Your task to perform on an android device: toggle location history Image 0: 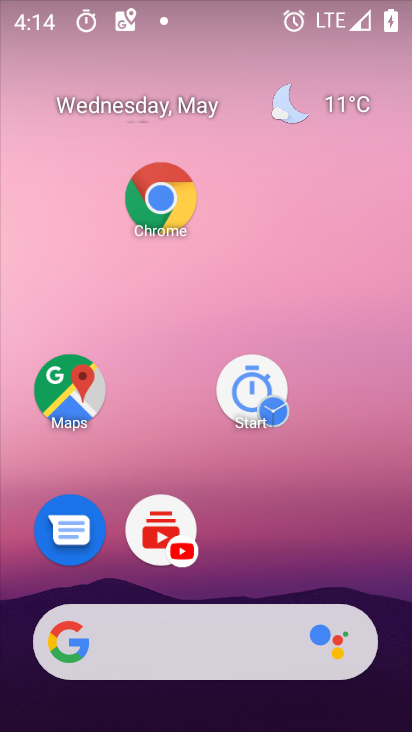
Step 0: drag from (341, 593) to (232, 95)
Your task to perform on an android device: toggle location history Image 1: 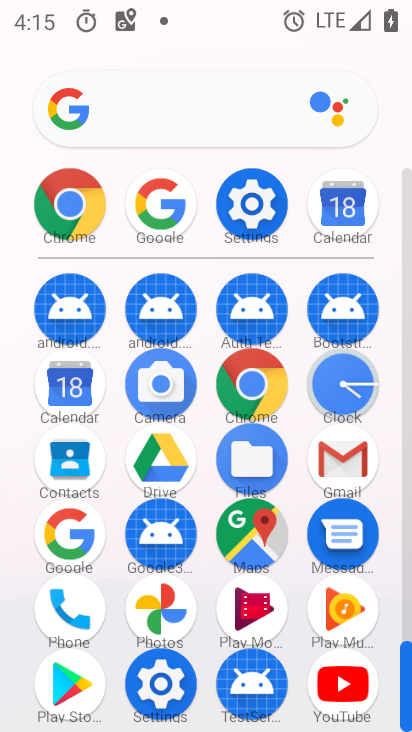
Step 1: click (226, 512)
Your task to perform on an android device: toggle location history Image 2: 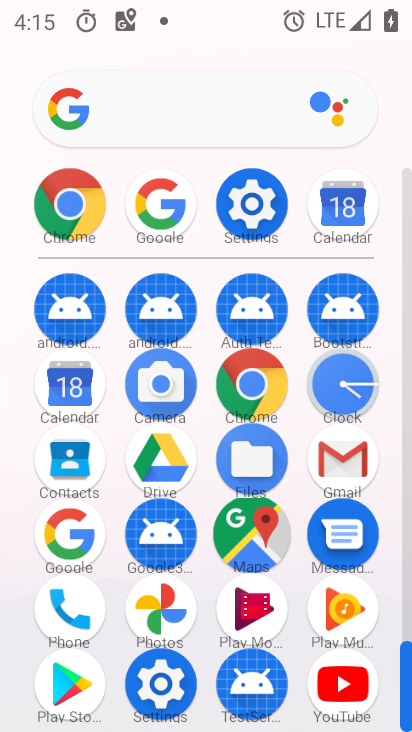
Step 2: click (243, 522)
Your task to perform on an android device: toggle location history Image 3: 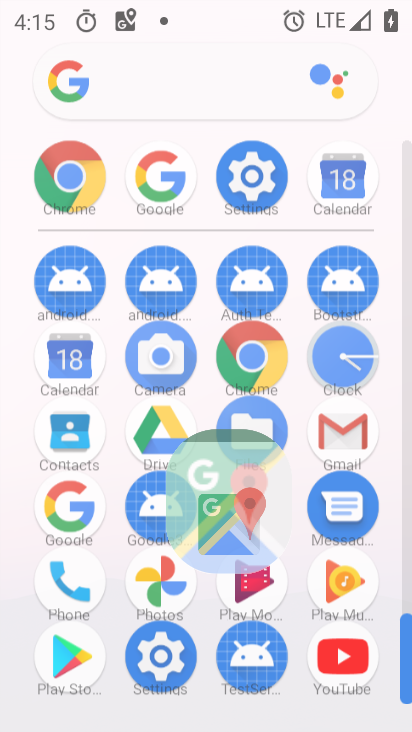
Step 3: click (243, 522)
Your task to perform on an android device: toggle location history Image 4: 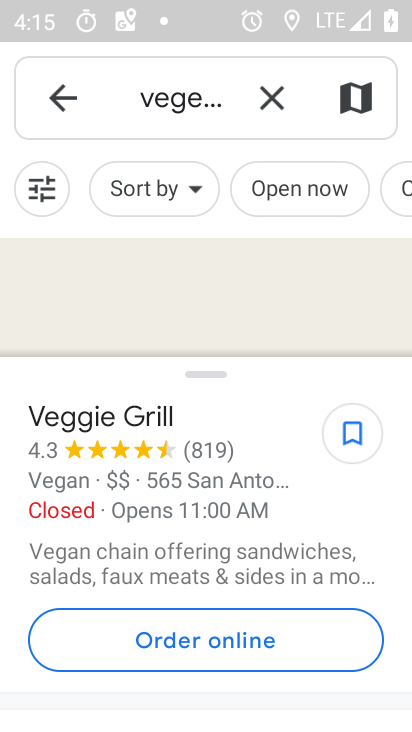
Step 4: click (51, 89)
Your task to perform on an android device: toggle location history Image 5: 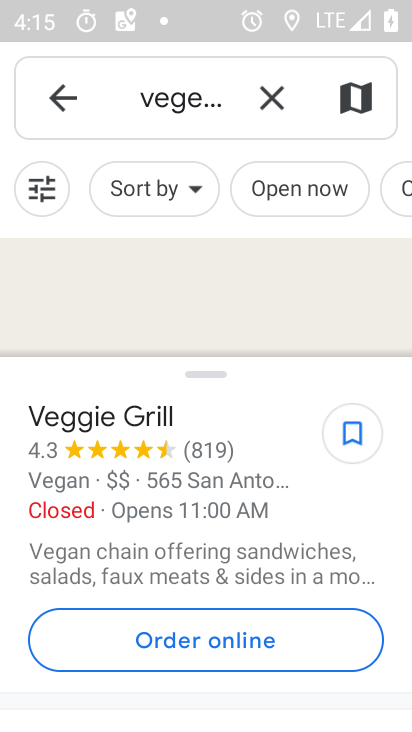
Step 5: click (53, 90)
Your task to perform on an android device: toggle location history Image 6: 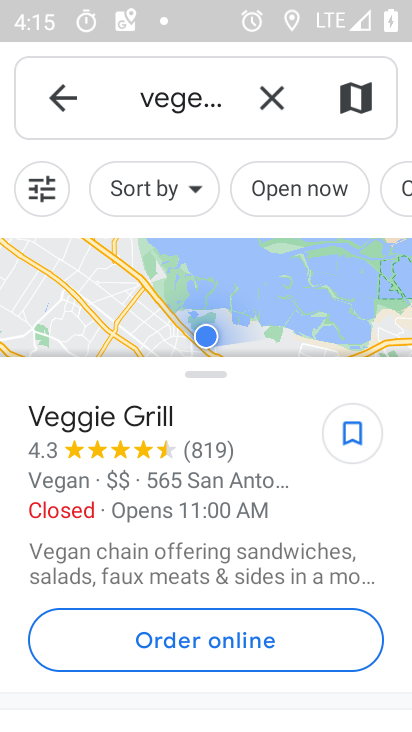
Step 6: click (56, 98)
Your task to perform on an android device: toggle location history Image 7: 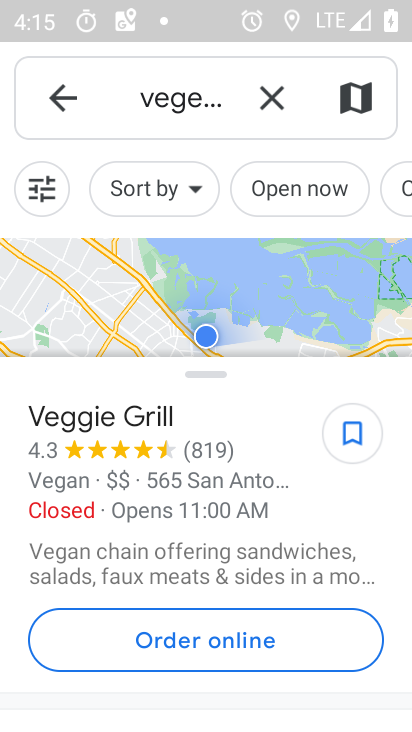
Step 7: click (57, 98)
Your task to perform on an android device: toggle location history Image 8: 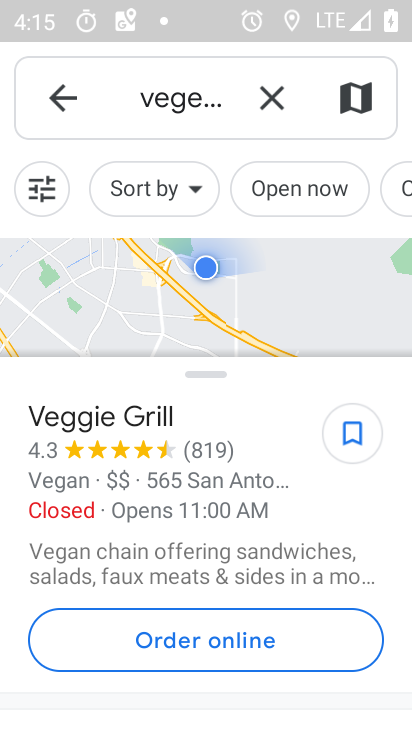
Step 8: click (57, 96)
Your task to perform on an android device: toggle location history Image 9: 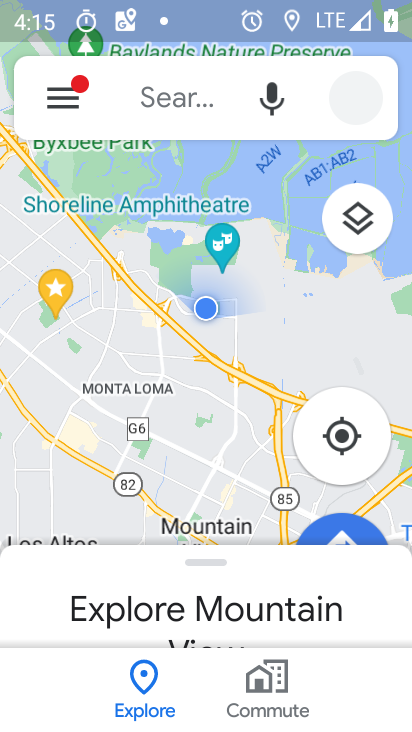
Step 9: click (69, 102)
Your task to perform on an android device: toggle location history Image 10: 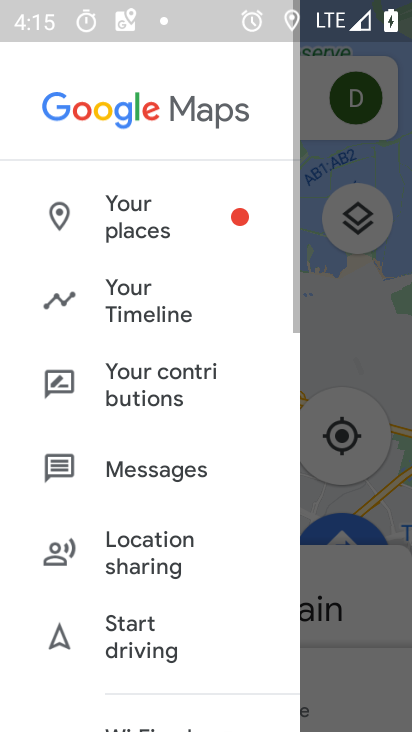
Step 10: click (68, 103)
Your task to perform on an android device: toggle location history Image 11: 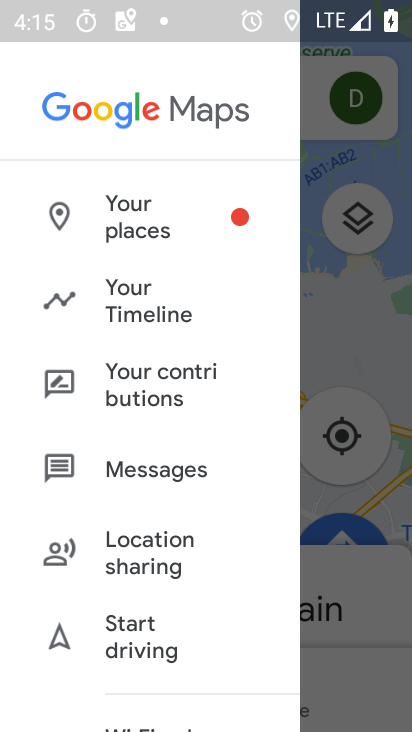
Step 11: click (353, 303)
Your task to perform on an android device: toggle location history Image 12: 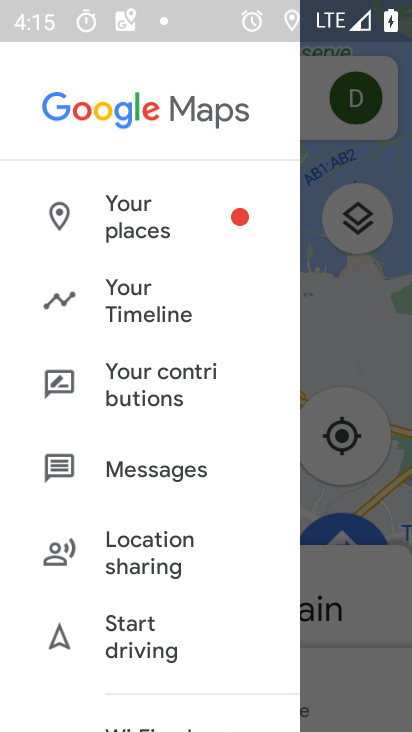
Step 12: click (353, 304)
Your task to perform on an android device: toggle location history Image 13: 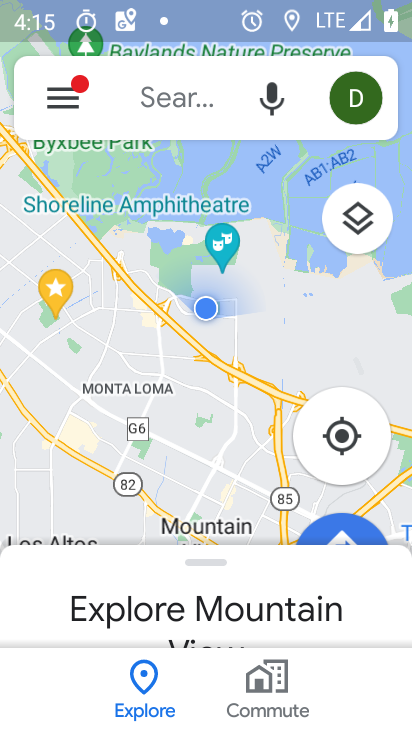
Step 13: click (353, 304)
Your task to perform on an android device: toggle location history Image 14: 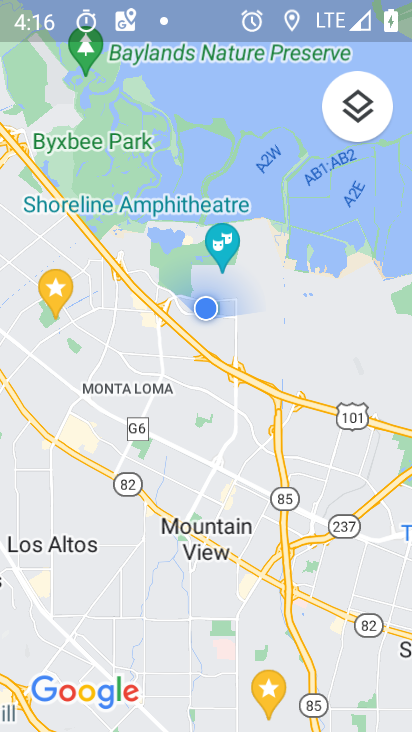
Step 14: drag from (131, 204) to (306, 558)
Your task to perform on an android device: toggle location history Image 15: 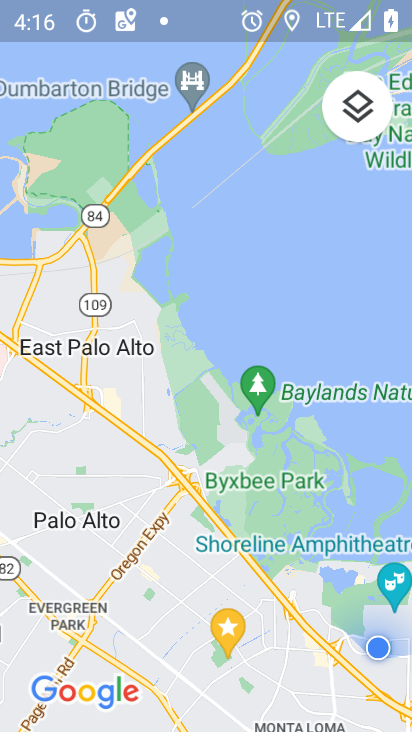
Step 15: drag from (219, 496) to (200, 429)
Your task to perform on an android device: toggle location history Image 16: 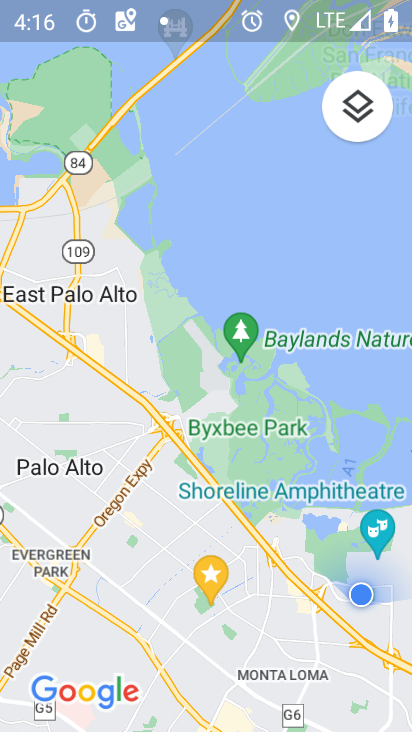
Step 16: click (130, 199)
Your task to perform on an android device: toggle location history Image 17: 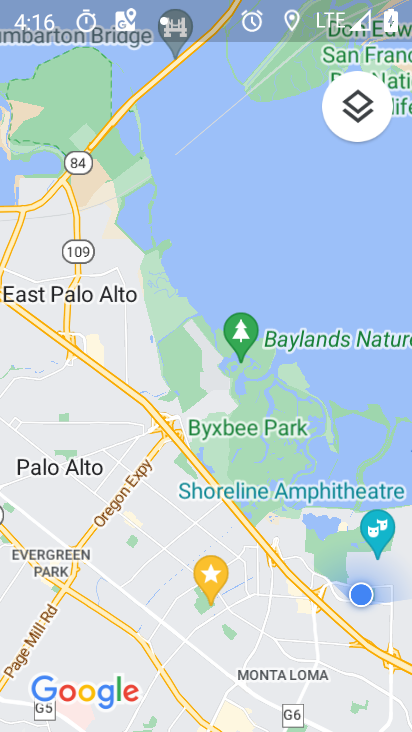
Step 17: click (130, 199)
Your task to perform on an android device: toggle location history Image 18: 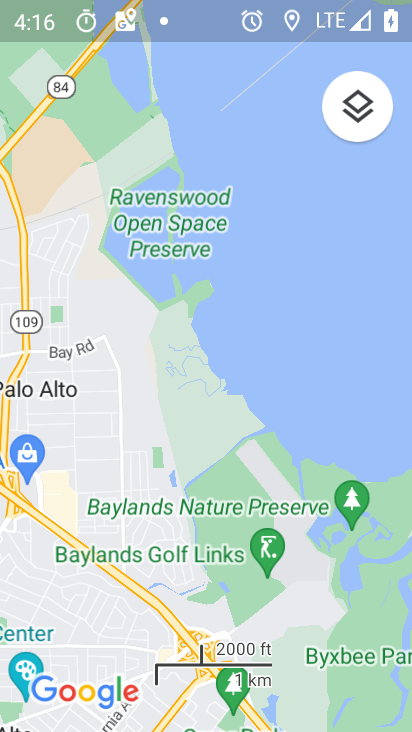
Step 18: task complete